Your task to perform on an android device: Go to ESPN.com Image 0: 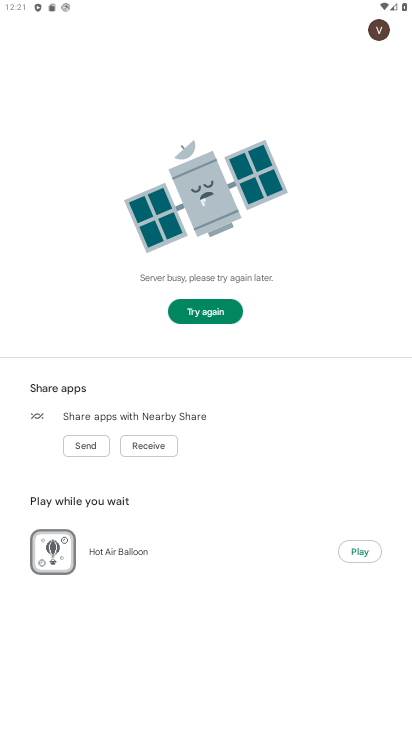
Step 0: press home button
Your task to perform on an android device: Go to ESPN.com Image 1: 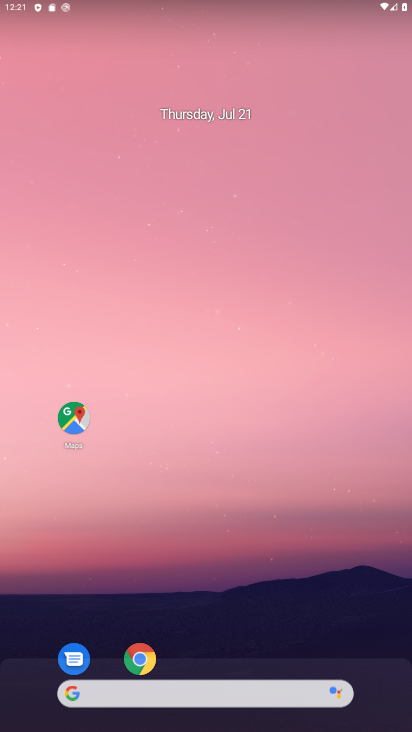
Step 1: click (136, 655)
Your task to perform on an android device: Go to ESPN.com Image 2: 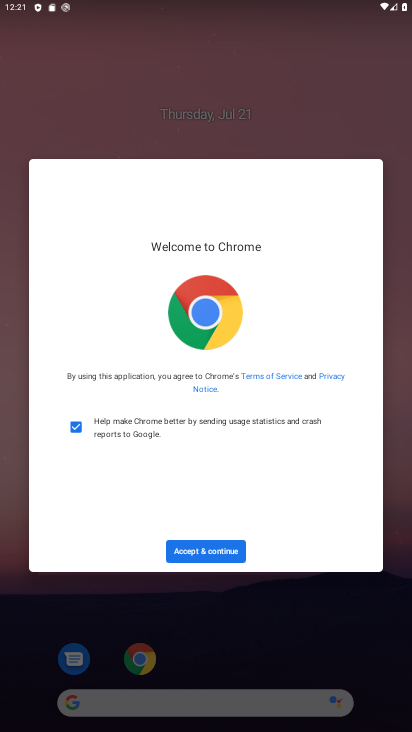
Step 2: click (203, 542)
Your task to perform on an android device: Go to ESPN.com Image 3: 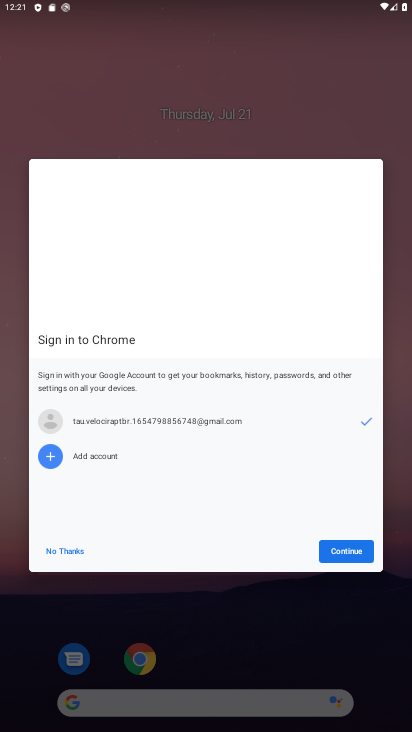
Step 3: click (342, 550)
Your task to perform on an android device: Go to ESPN.com Image 4: 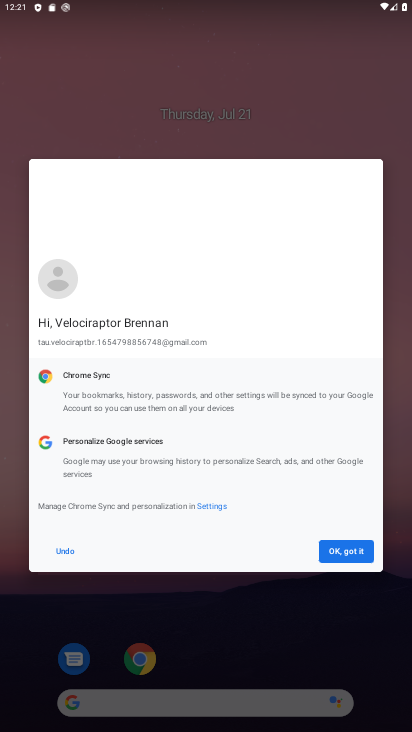
Step 4: click (342, 550)
Your task to perform on an android device: Go to ESPN.com Image 5: 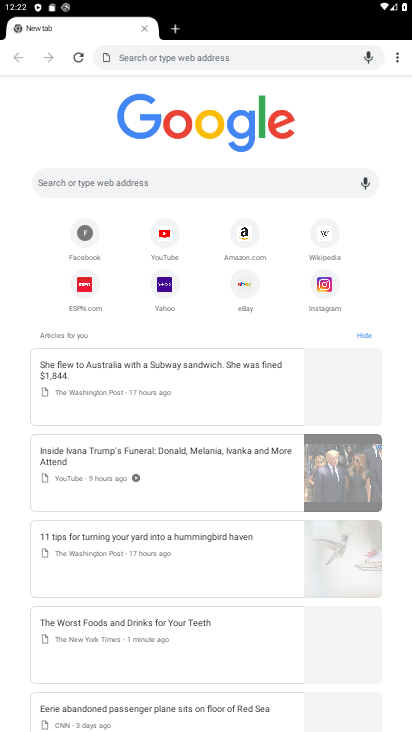
Step 5: click (85, 289)
Your task to perform on an android device: Go to ESPN.com Image 6: 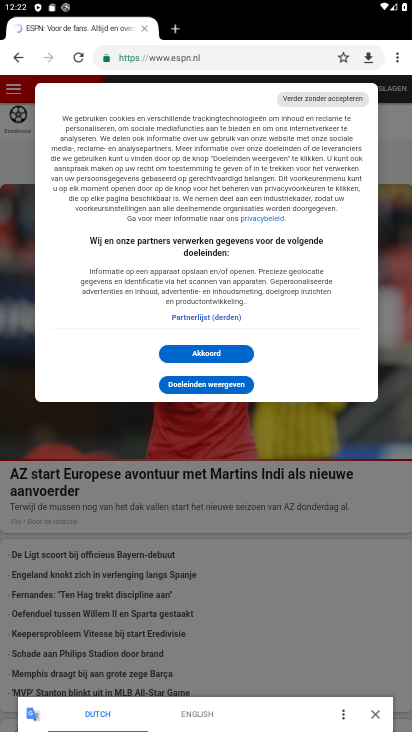
Step 6: click (206, 355)
Your task to perform on an android device: Go to ESPN.com Image 7: 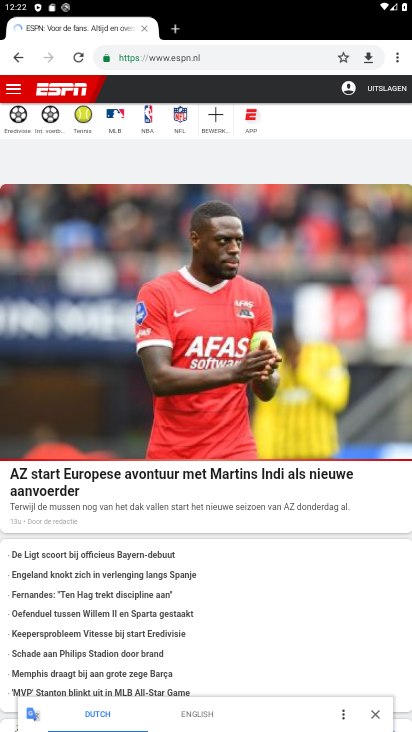
Step 7: task complete